Your task to perform on an android device: See recent photos Image 0: 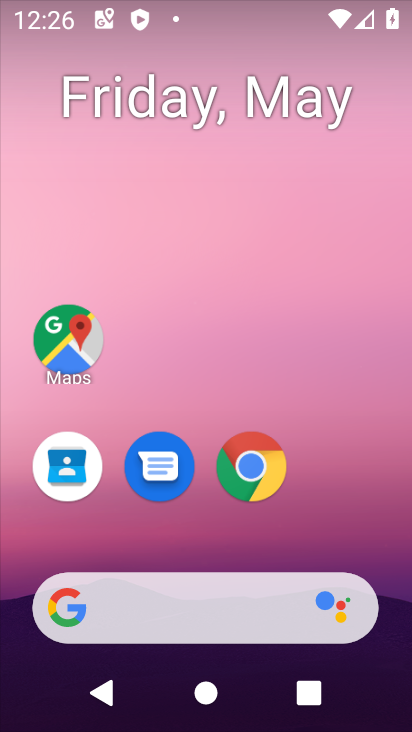
Step 0: drag from (238, 542) to (230, 7)
Your task to perform on an android device: See recent photos Image 1: 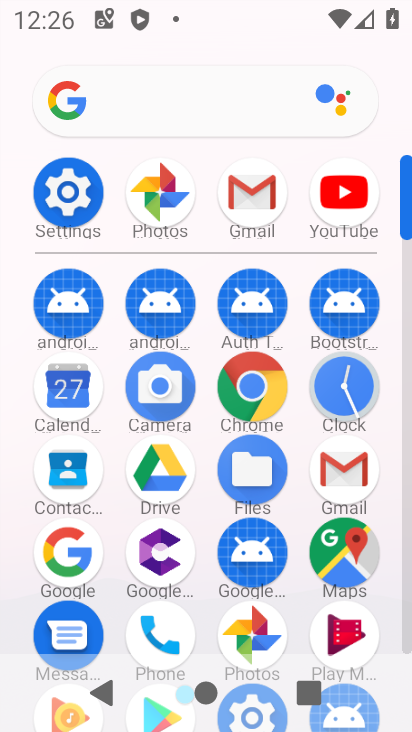
Step 1: click (253, 621)
Your task to perform on an android device: See recent photos Image 2: 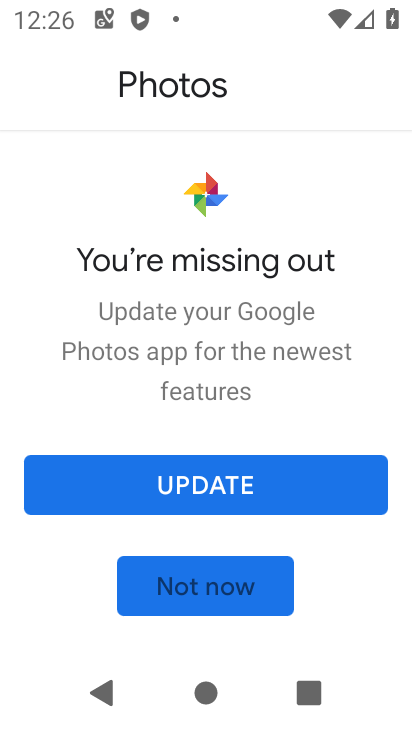
Step 2: click (206, 474)
Your task to perform on an android device: See recent photos Image 3: 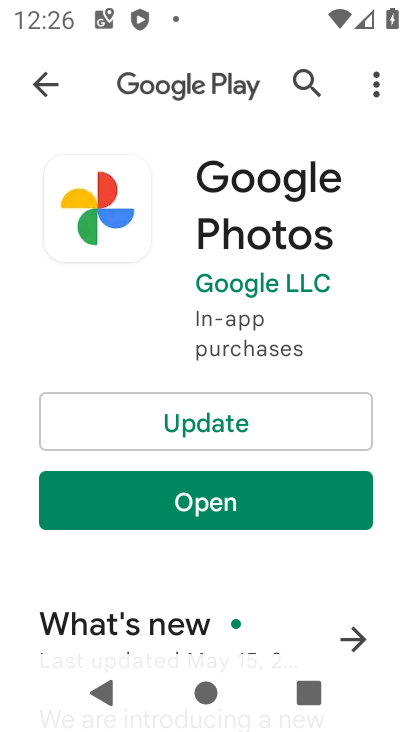
Step 3: click (210, 427)
Your task to perform on an android device: See recent photos Image 4: 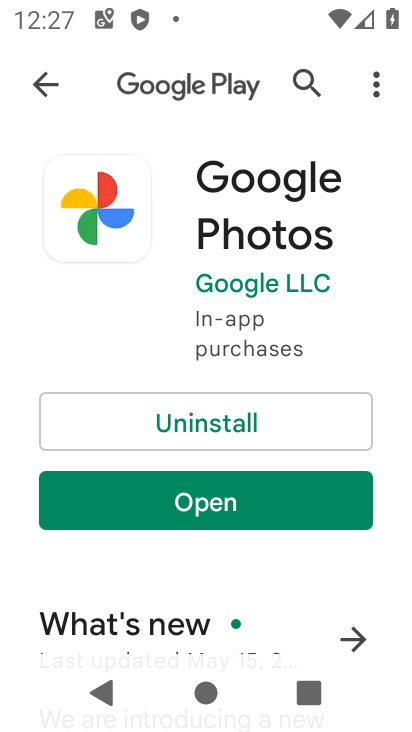
Step 4: click (210, 500)
Your task to perform on an android device: See recent photos Image 5: 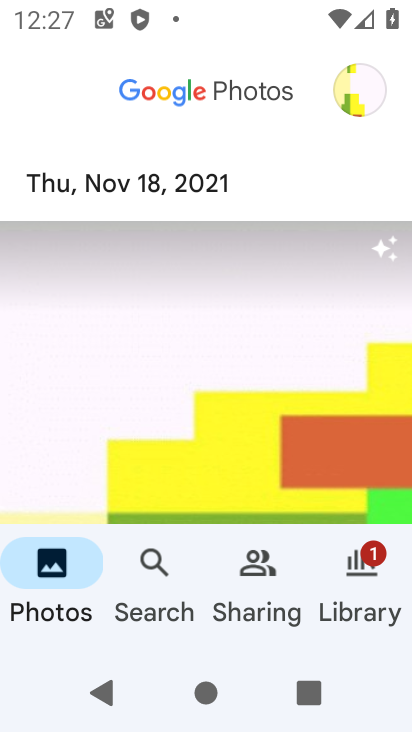
Step 5: click (352, 582)
Your task to perform on an android device: See recent photos Image 6: 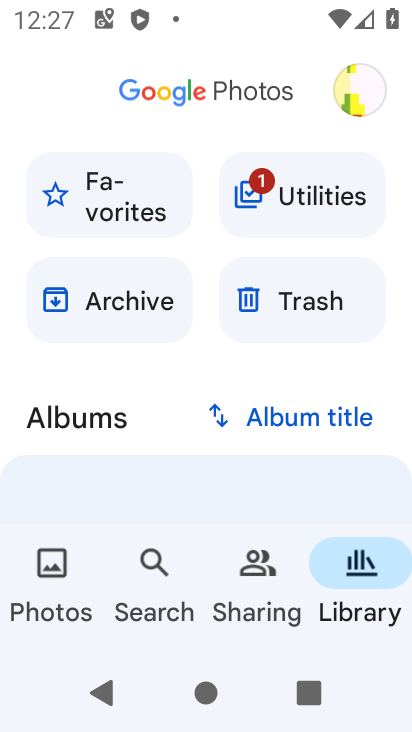
Step 6: task complete